Your task to perform on an android device: manage bookmarks in the chrome app Image 0: 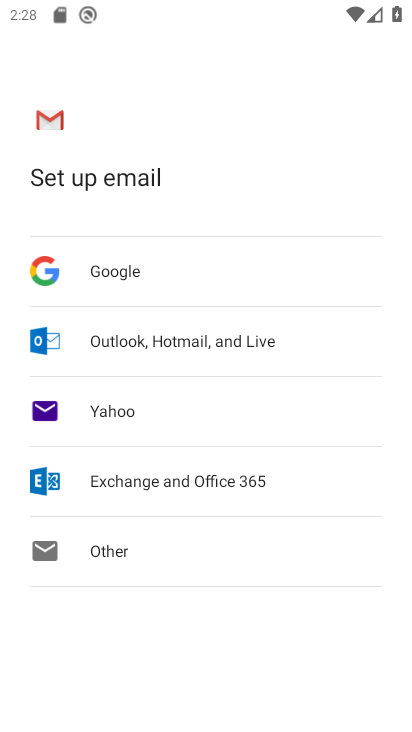
Step 0: press home button
Your task to perform on an android device: manage bookmarks in the chrome app Image 1: 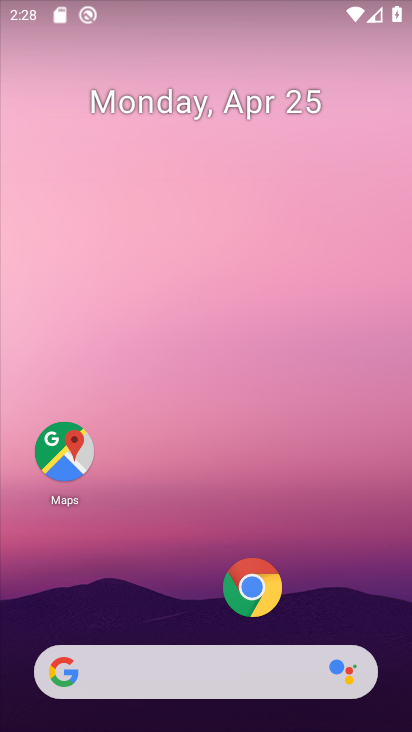
Step 1: click (249, 578)
Your task to perform on an android device: manage bookmarks in the chrome app Image 2: 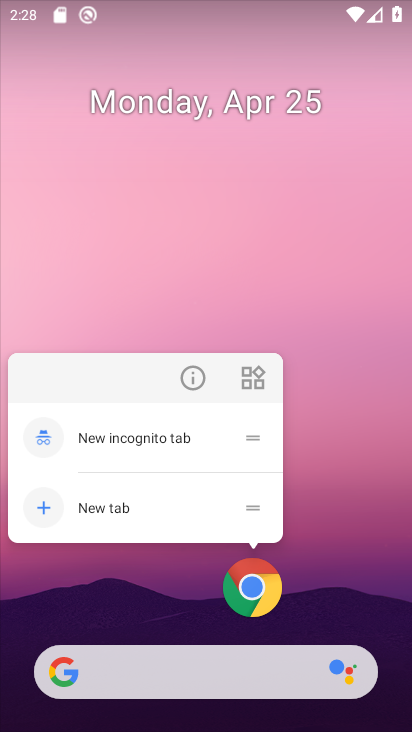
Step 2: click (249, 586)
Your task to perform on an android device: manage bookmarks in the chrome app Image 3: 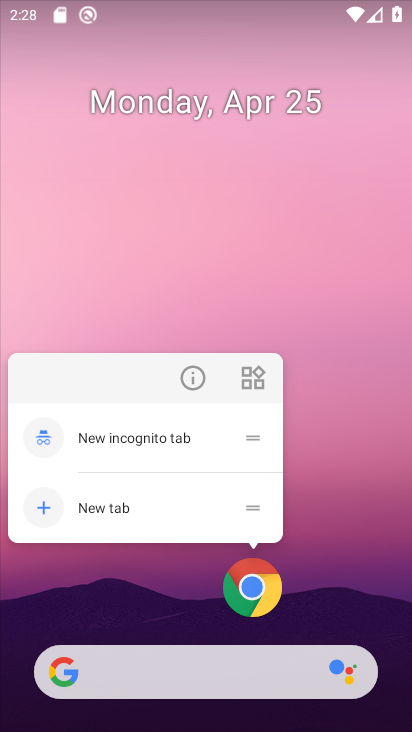
Step 3: click (266, 588)
Your task to perform on an android device: manage bookmarks in the chrome app Image 4: 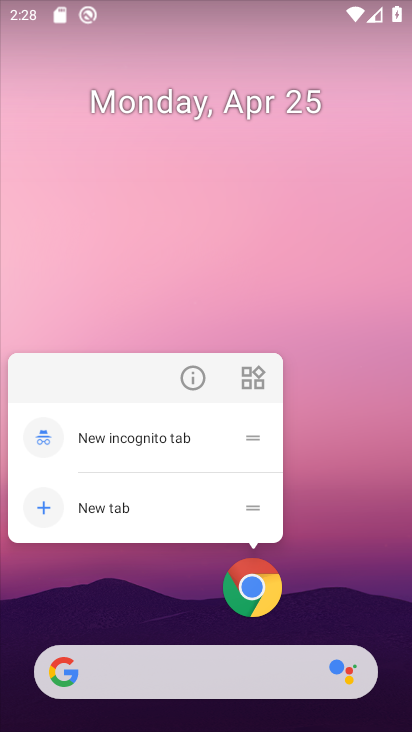
Step 4: click (325, 589)
Your task to perform on an android device: manage bookmarks in the chrome app Image 5: 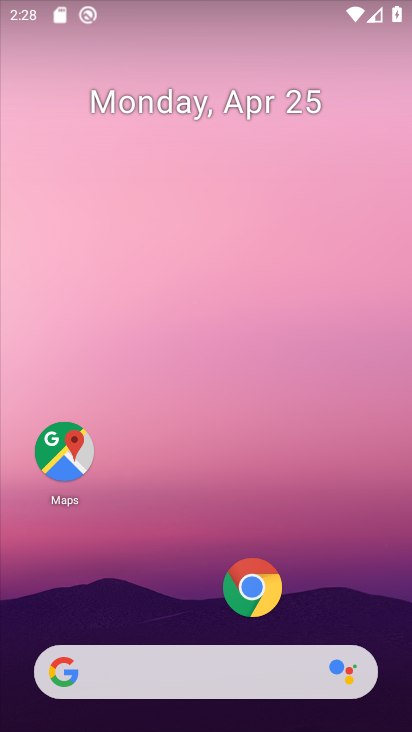
Step 5: drag from (197, 620) to (220, 21)
Your task to perform on an android device: manage bookmarks in the chrome app Image 6: 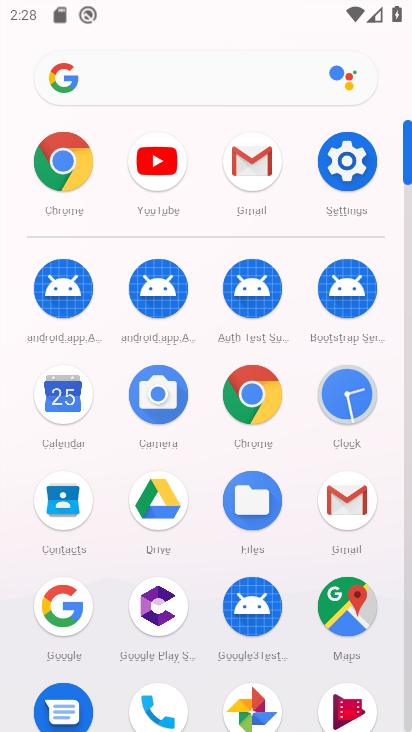
Step 6: click (249, 388)
Your task to perform on an android device: manage bookmarks in the chrome app Image 7: 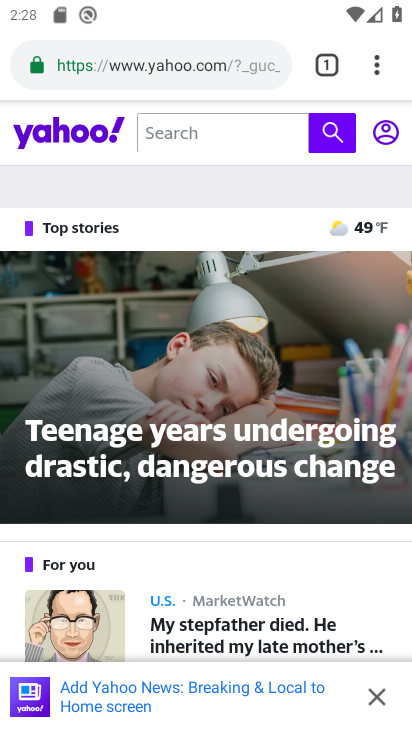
Step 7: click (379, 62)
Your task to perform on an android device: manage bookmarks in the chrome app Image 8: 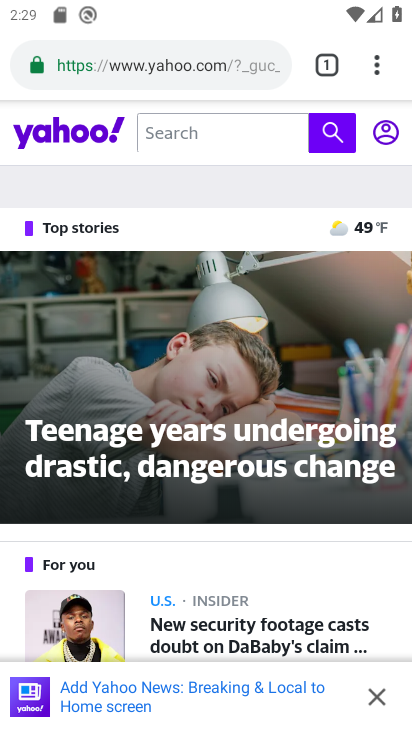
Step 8: click (377, 64)
Your task to perform on an android device: manage bookmarks in the chrome app Image 9: 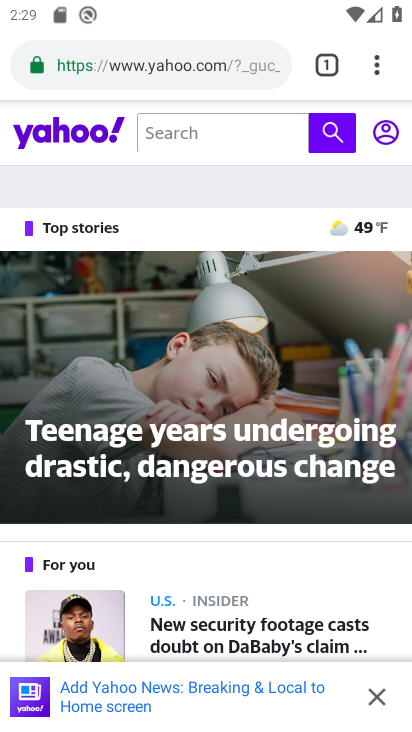
Step 9: click (377, 64)
Your task to perform on an android device: manage bookmarks in the chrome app Image 10: 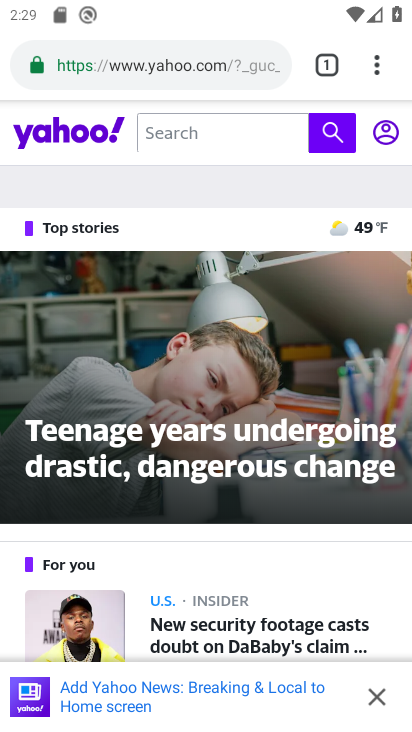
Step 10: click (377, 57)
Your task to perform on an android device: manage bookmarks in the chrome app Image 11: 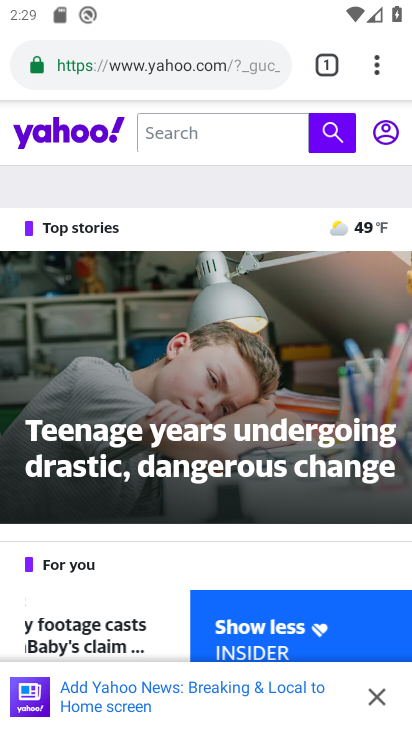
Step 11: click (378, 69)
Your task to perform on an android device: manage bookmarks in the chrome app Image 12: 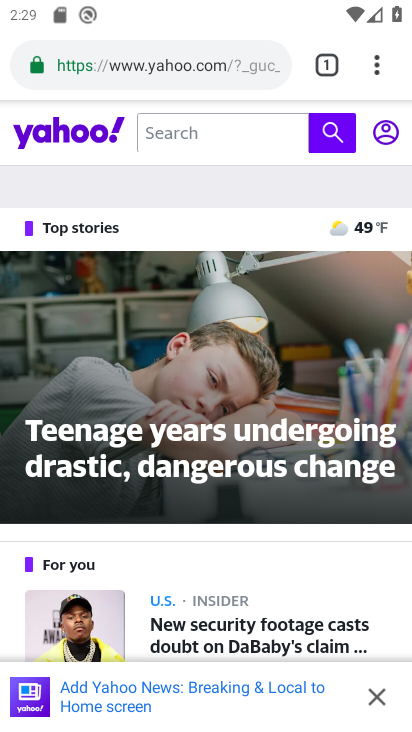
Step 12: press back button
Your task to perform on an android device: manage bookmarks in the chrome app Image 13: 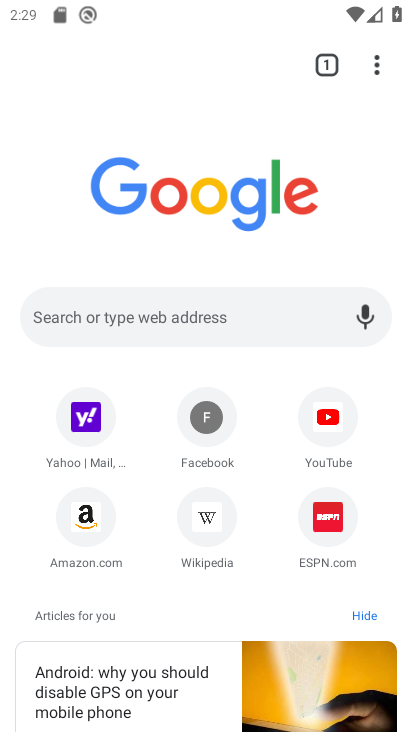
Step 13: click (374, 63)
Your task to perform on an android device: manage bookmarks in the chrome app Image 14: 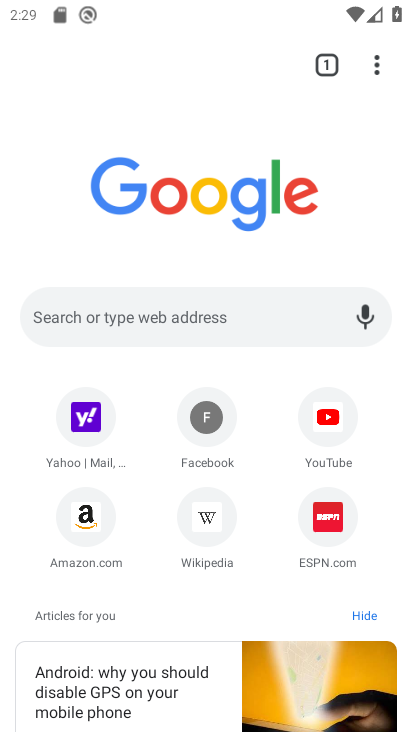
Step 14: click (376, 57)
Your task to perform on an android device: manage bookmarks in the chrome app Image 15: 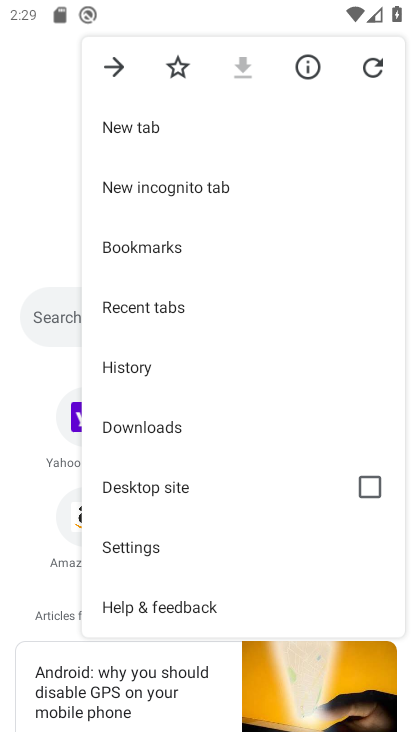
Step 15: click (183, 243)
Your task to perform on an android device: manage bookmarks in the chrome app Image 16: 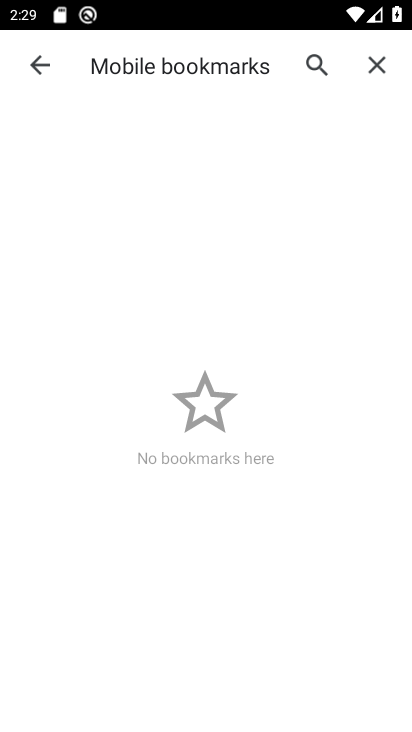
Step 16: task complete